Your task to perform on an android device: check battery use Image 0: 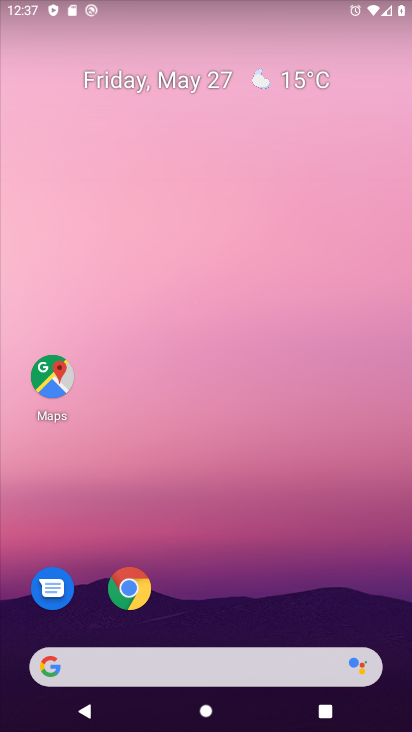
Step 0: drag from (383, 618) to (336, 45)
Your task to perform on an android device: check battery use Image 1: 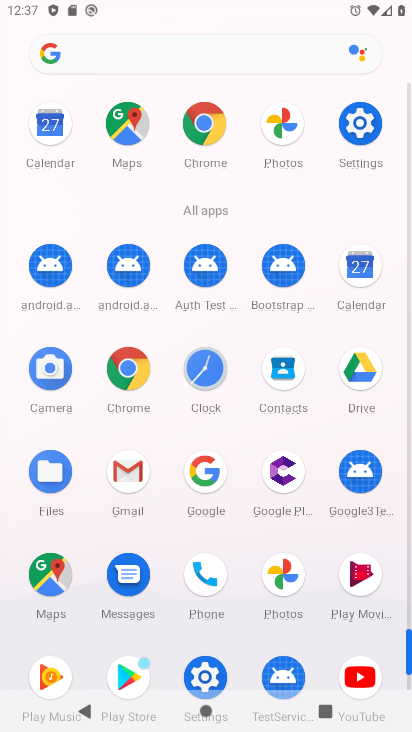
Step 1: click (206, 669)
Your task to perform on an android device: check battery use Image 2: 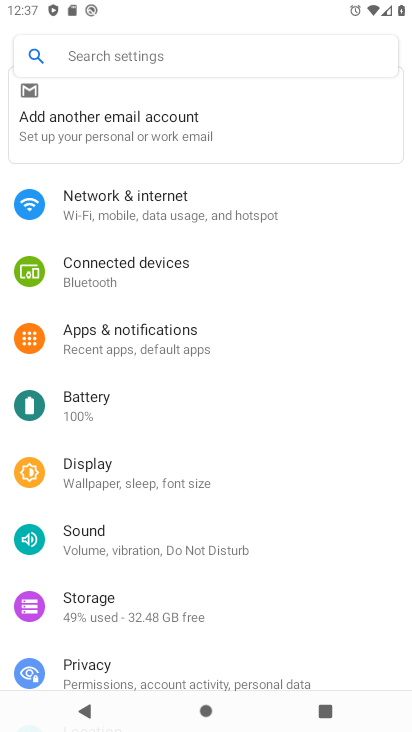
Step 2: click (77, 390)
Your task to perform on an android device: check battery use Image 3: 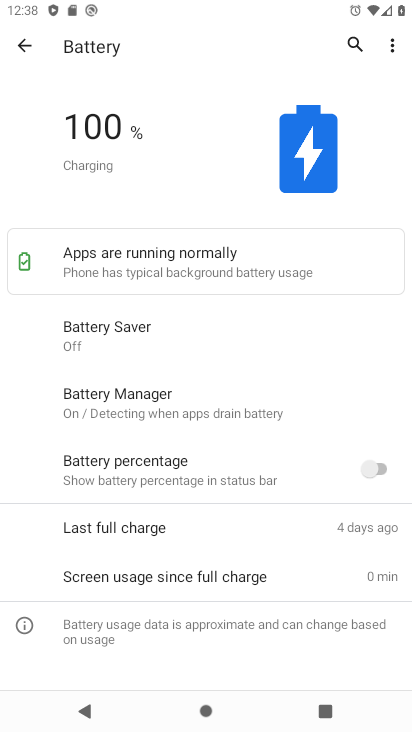
Step 3: drag from (241, 635) to (321, 235)
Your task to perform on an android device: check battery use Image 4: 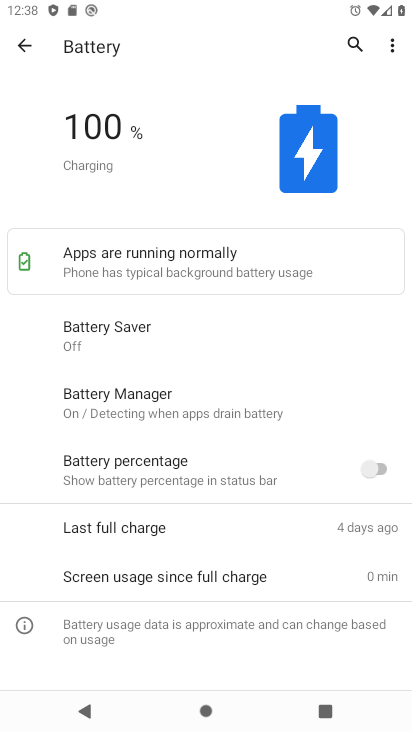
Step 4: click (392, 51)
Your task to perform on an android device: check battery use Image 5: 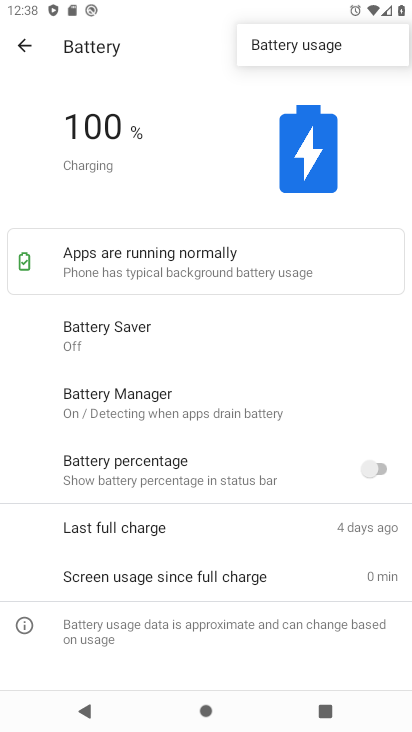
Step 5: click (281, 43)
Your task to perform on an android device: check battery use Image 6: 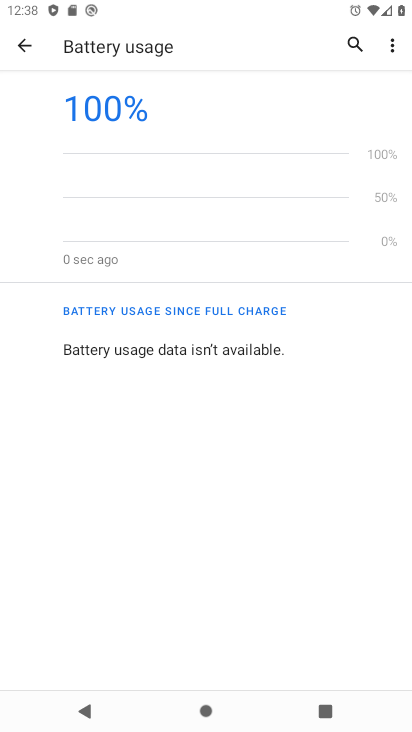
Step 6: task complete